Your task to perform on an android device: check battery use Image 0: 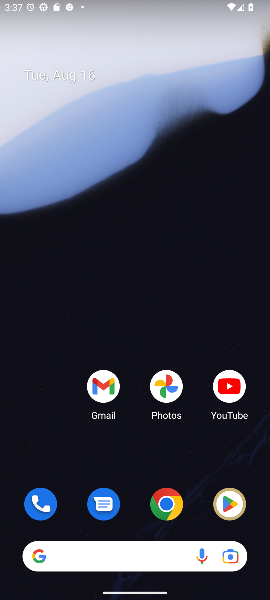
Step 0: drag from (134, 480) to (127, 95)
Your task to perform on an android device: check battery use Image 1: 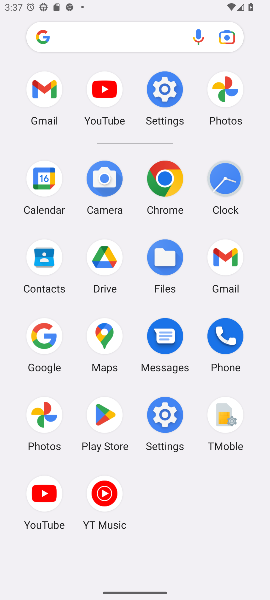
Step 1: click (164, 89)
Your task to perform on an android device: check battery use Image 2: 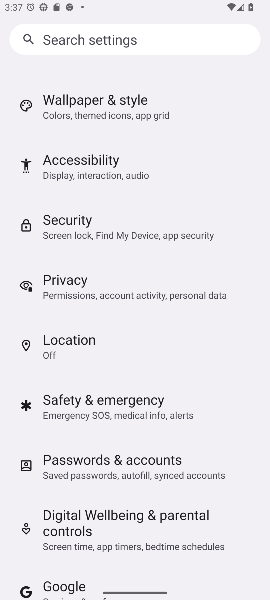
Step 2: drag from (204, 128) to (162, 391)
Your task to perform on an android device: check battery use Image 3: 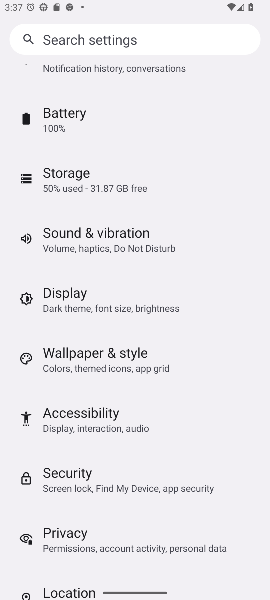
Step 3: click (52, 111)
Your task to perform on an android device: check battery use Image 4: 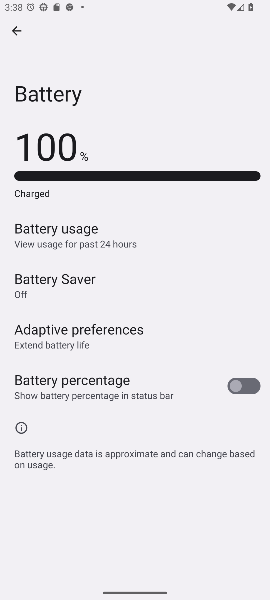
Step 4: task complete